Your task to perform on an android device: turn on location history Image 0: 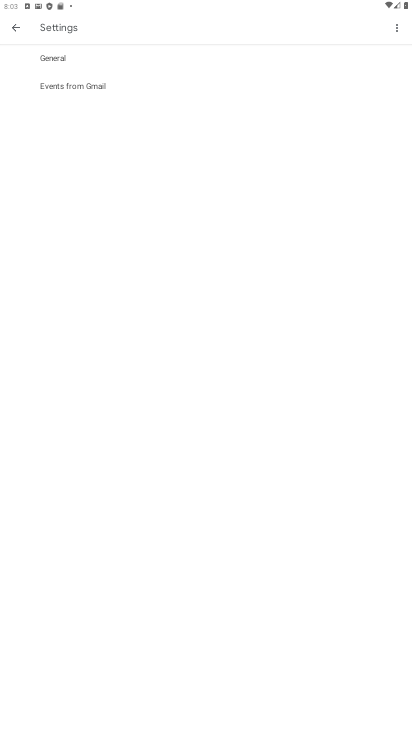
Step 0: press home button
Your task to perform on an android device: turn on location history Image 1: 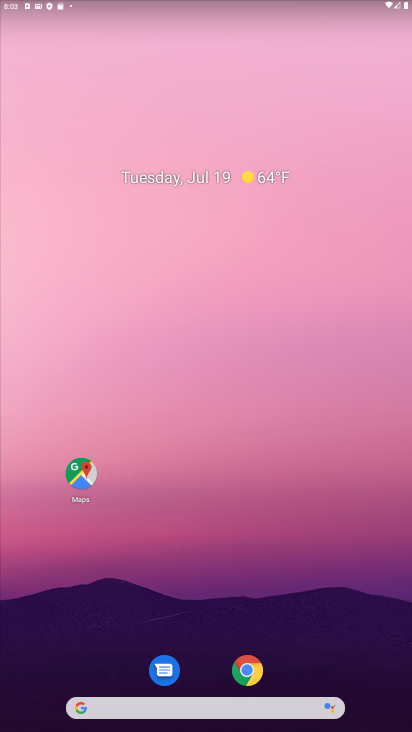
Step 1: click (85, 464)
Your task to perform on an android device: turn on location history Image 2: 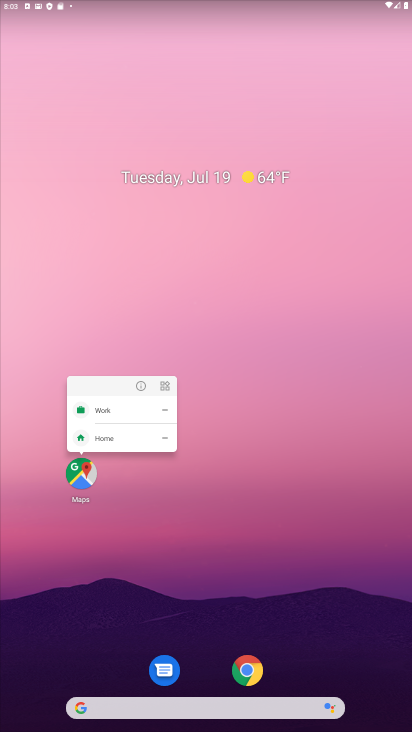
Step 2: click (85, 464)
Your task to perform on an android device: turn on location history Image 3: 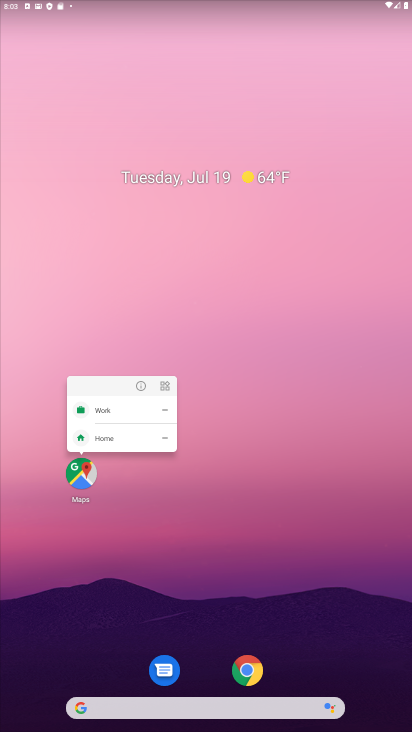
Step 3: click (85, 464)
Your task to perform on an android device: turn on location history Image 4: 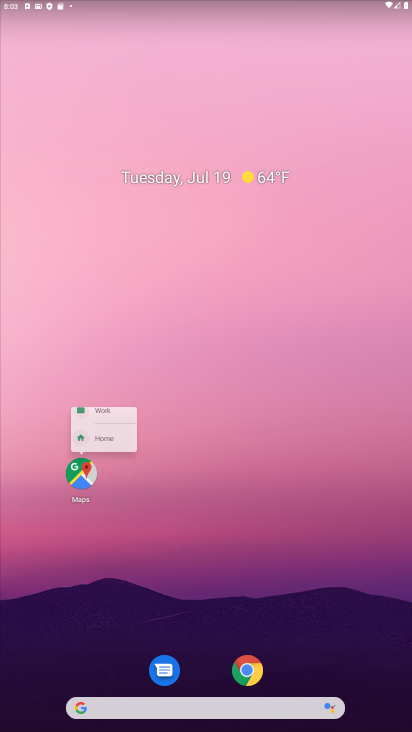
Step 4: click (85, 464)
Your task to perform on an android device: turn on location history Image 5: 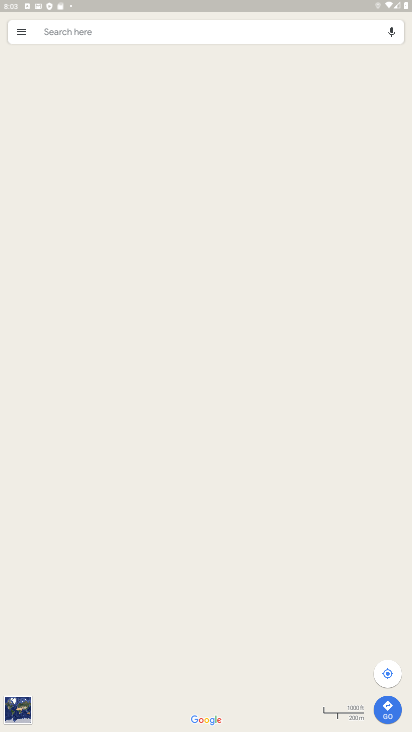
Step 5: click (17, 29)
Your task to perform on an android device: turn on location history Image 6: 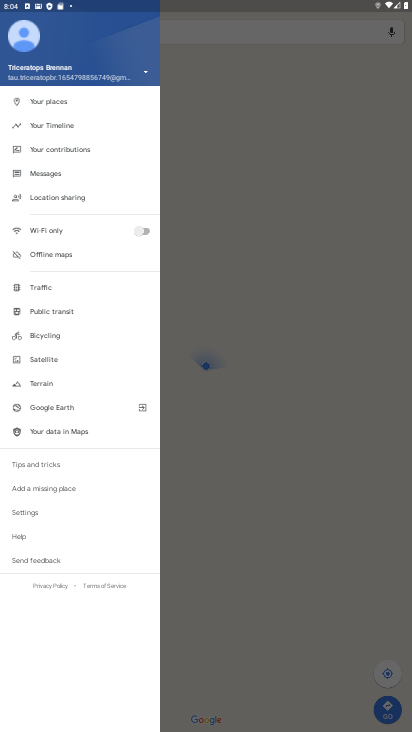
Step 6: click (30, 508)
Your task to perform on an android device: turn on location history Image 7: 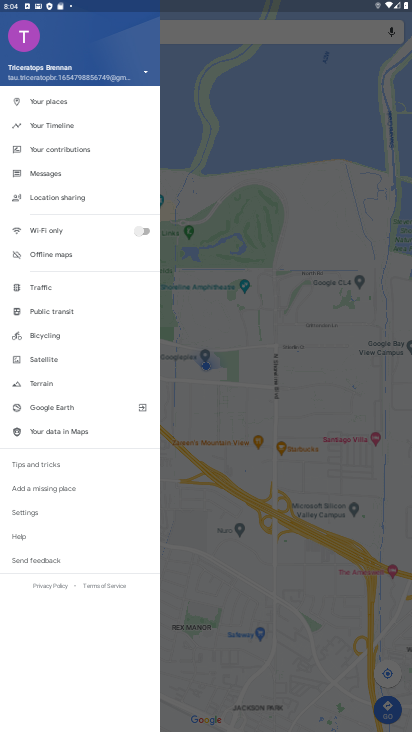
Step 7: click (82, 122)
Your task to perform on an android device: turn on location history Image 8: 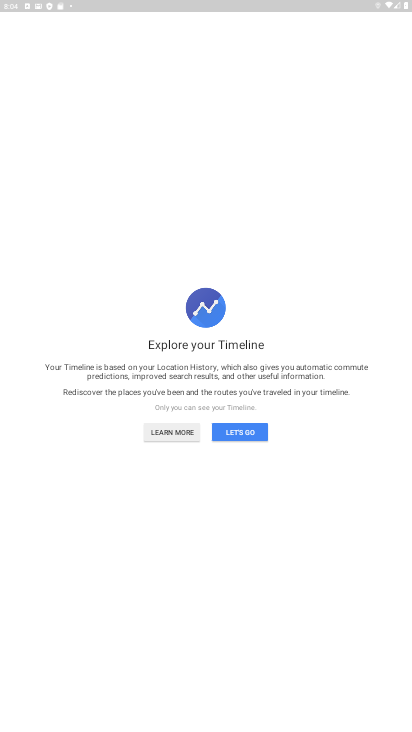
Step 8: click (247, 435)
Your task to perform on an android device: turn on location history Image 9: 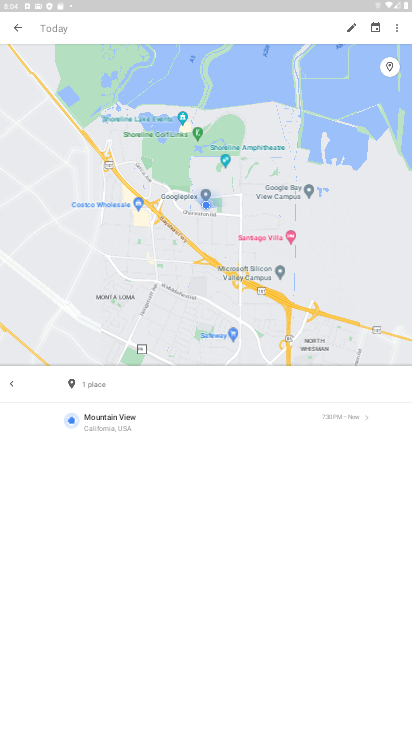
Step 9: click (399, 23)
Your task to perform on an android device: turn on location history Image 10: 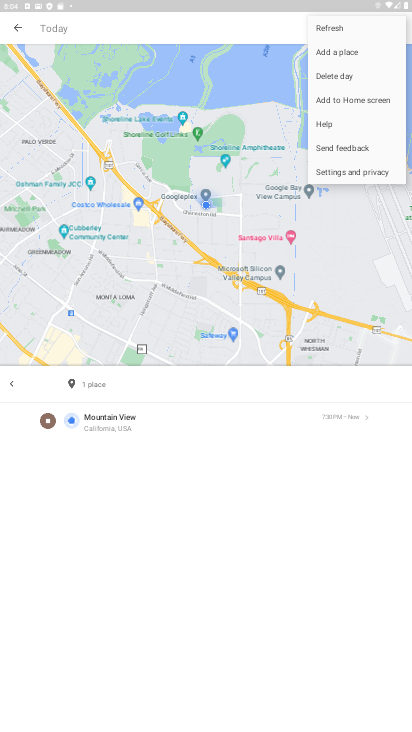
Step 10: click (352, 172)
Your task to perform on an android device: turn on location history Image 11: 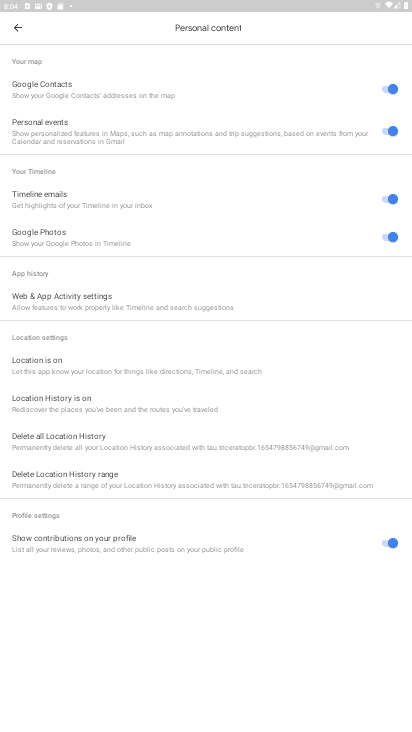
Step 11: click (97, 408)
Your task to perform on an android device: turn on location history Image 12: 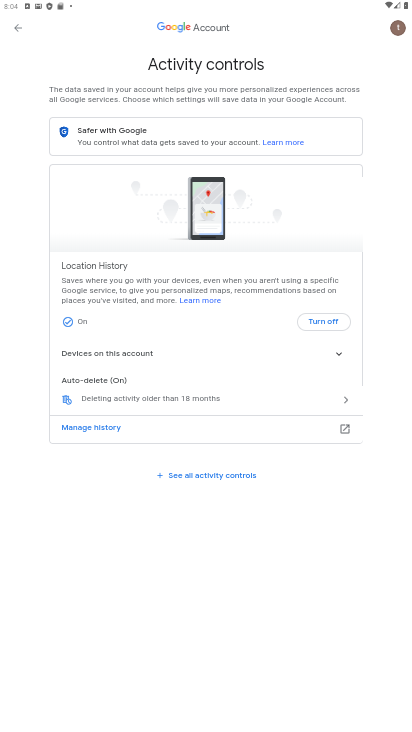
Step 12: task complete